Your task to perform on an android device: change the clock display to analog Image 0: 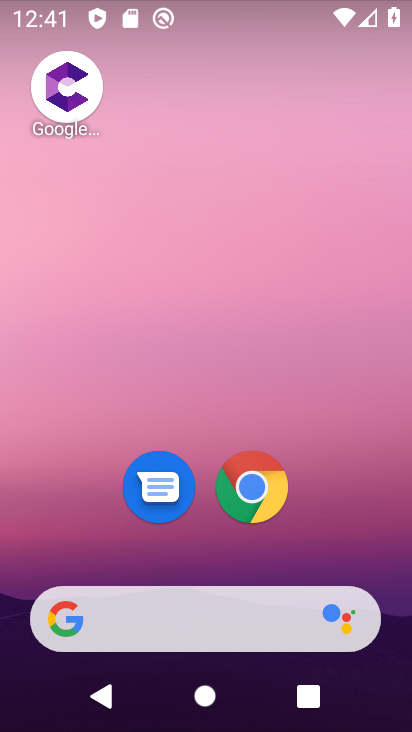
Step 0: drag from (222, 523) to (221, 19)
Your task to perform on an android device: change the clock display to analog Image 1: 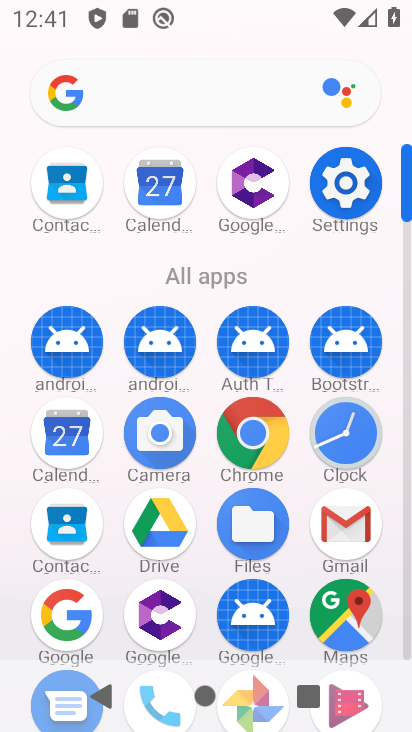
Step 1: click (339, 457)
Your task to perform on an android device: change the clock display to analog Image 2: 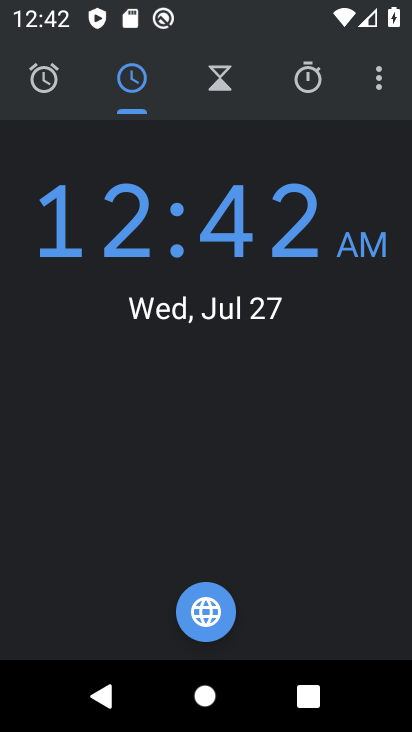
Step 2: click (379, 82)
Your task to perform on an android device: change the clock display to analog Image 3: 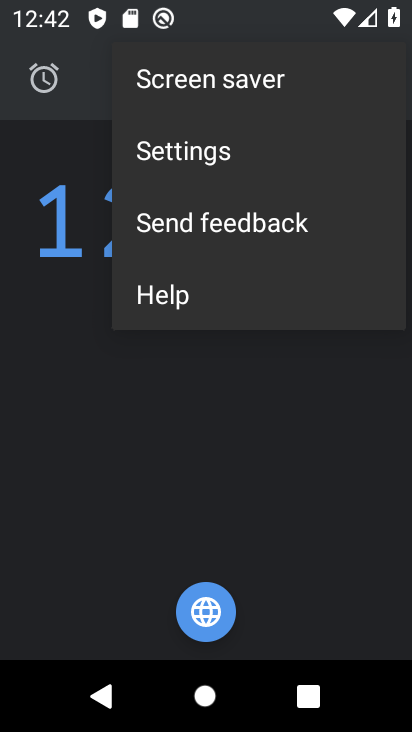
Step 3: click (203, 141)
Your task to perform on an android device: change the clock display to analog Image 4: 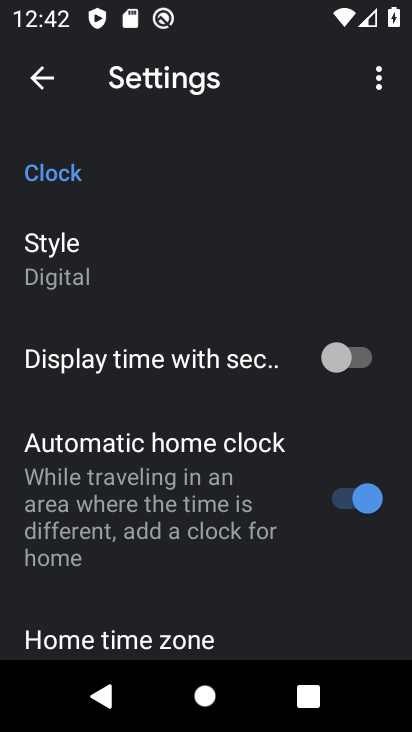
Step 4: click (118, 258)
Your task to perform on an android device: change the clock display to analog Image 5: 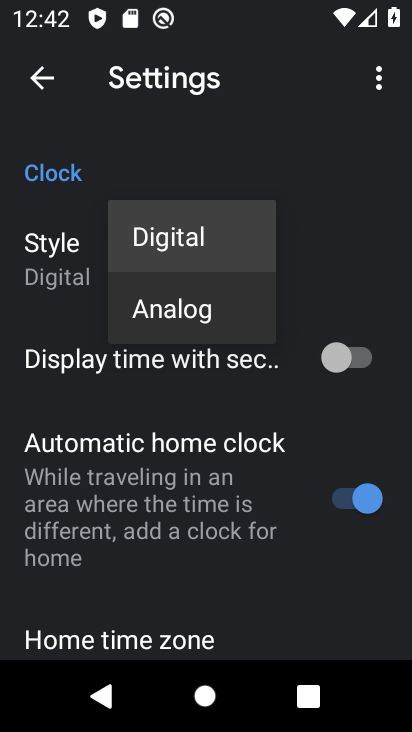
Step 5: click (189, 308)
Your task to perform on an android device: change the clock display to analog Image 6: 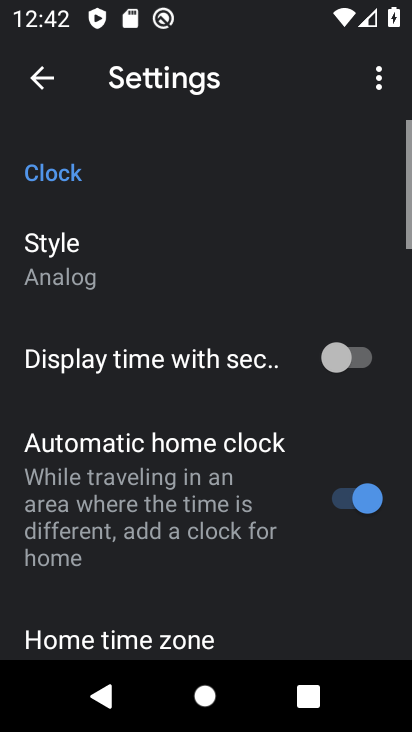
Step 6: task complete